Your task to perform on an android device: Open the contacts Image 0: 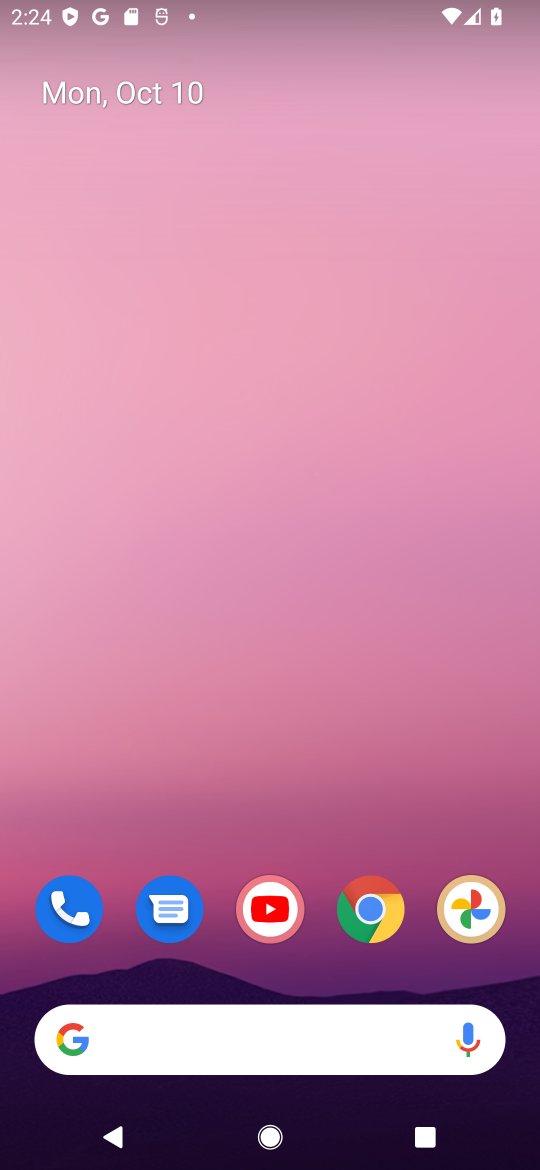
Step 0: drag from (425, 974) to (367, 169)
Your task to perform on an android device: Open the contacts Image 1: 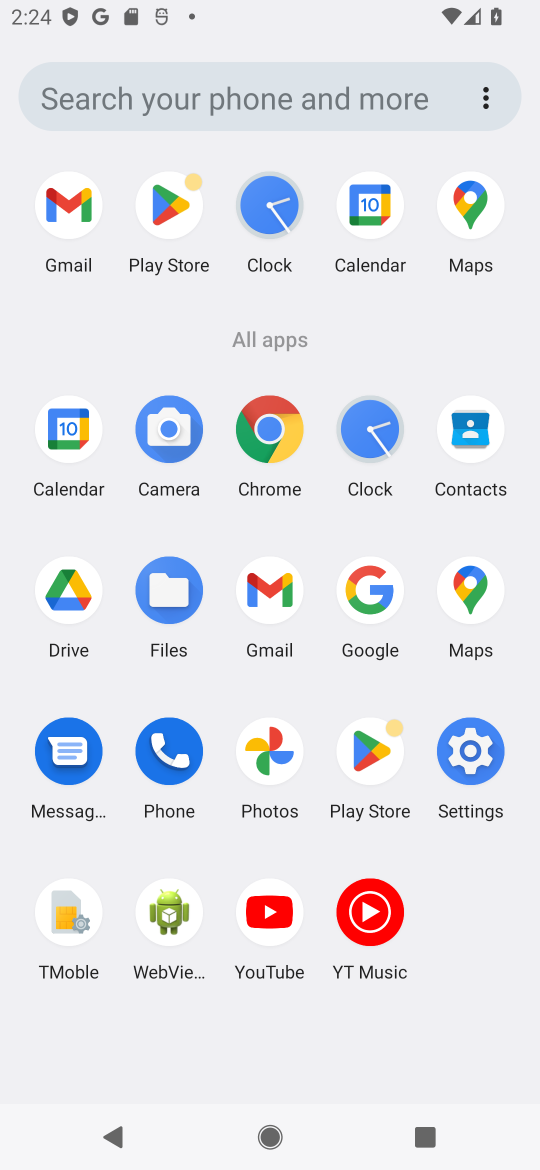
Step 1: click (470, 430)
Your task to perform on an android device: Open the contacts Image 2: 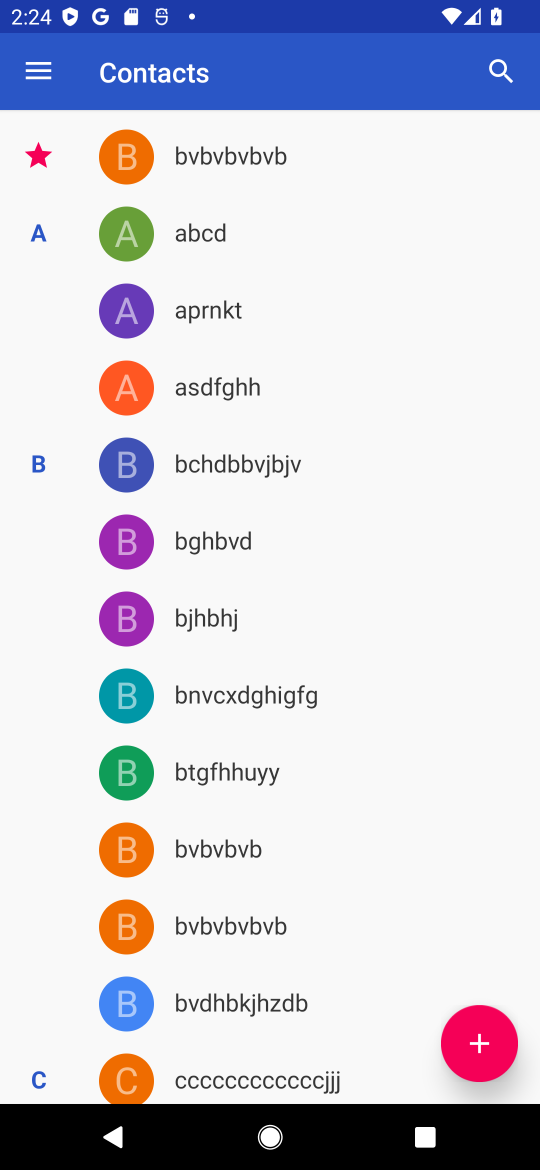
Step 2: task complete